Your task to perform on an android device: allow cookies in the chrome app Image 0: 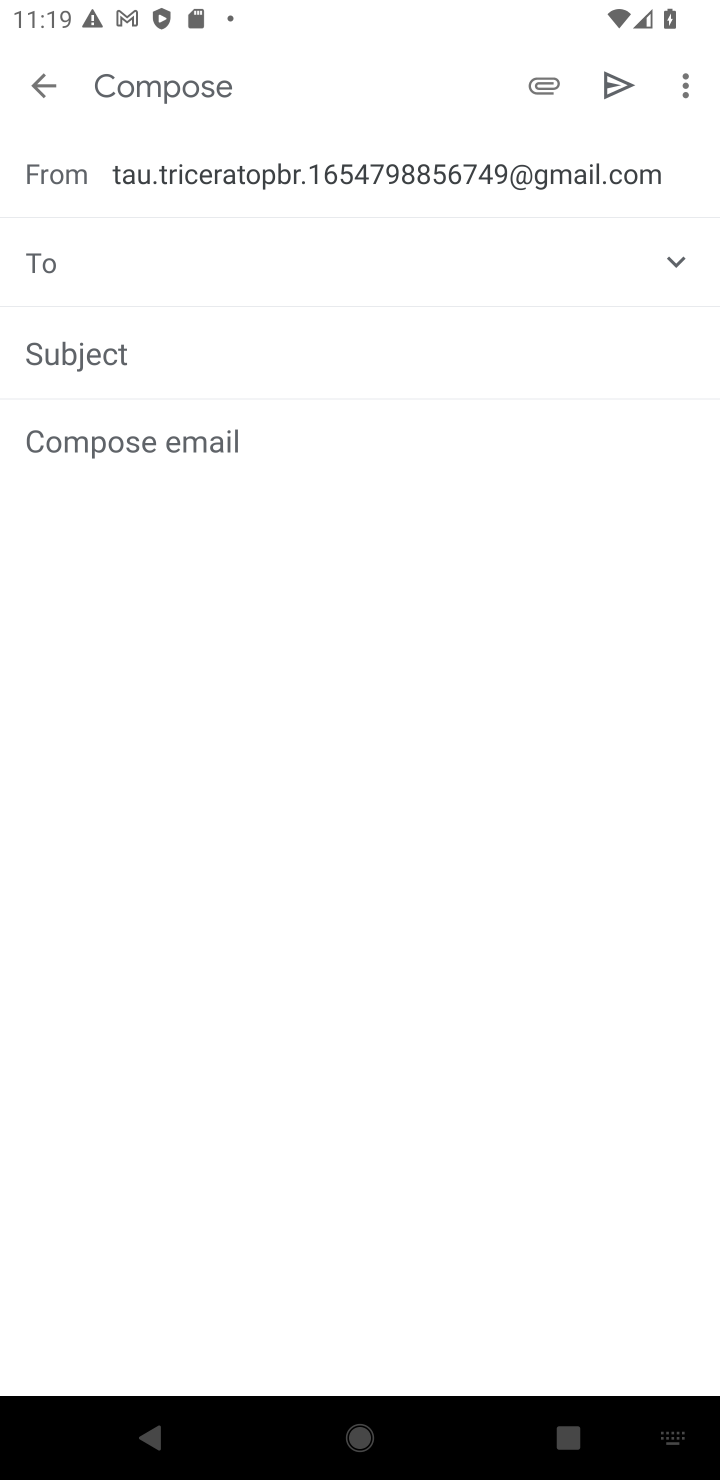
Step 0: press home button
Your task to perform on an android device: allow cookies in the chrome app Image 1: 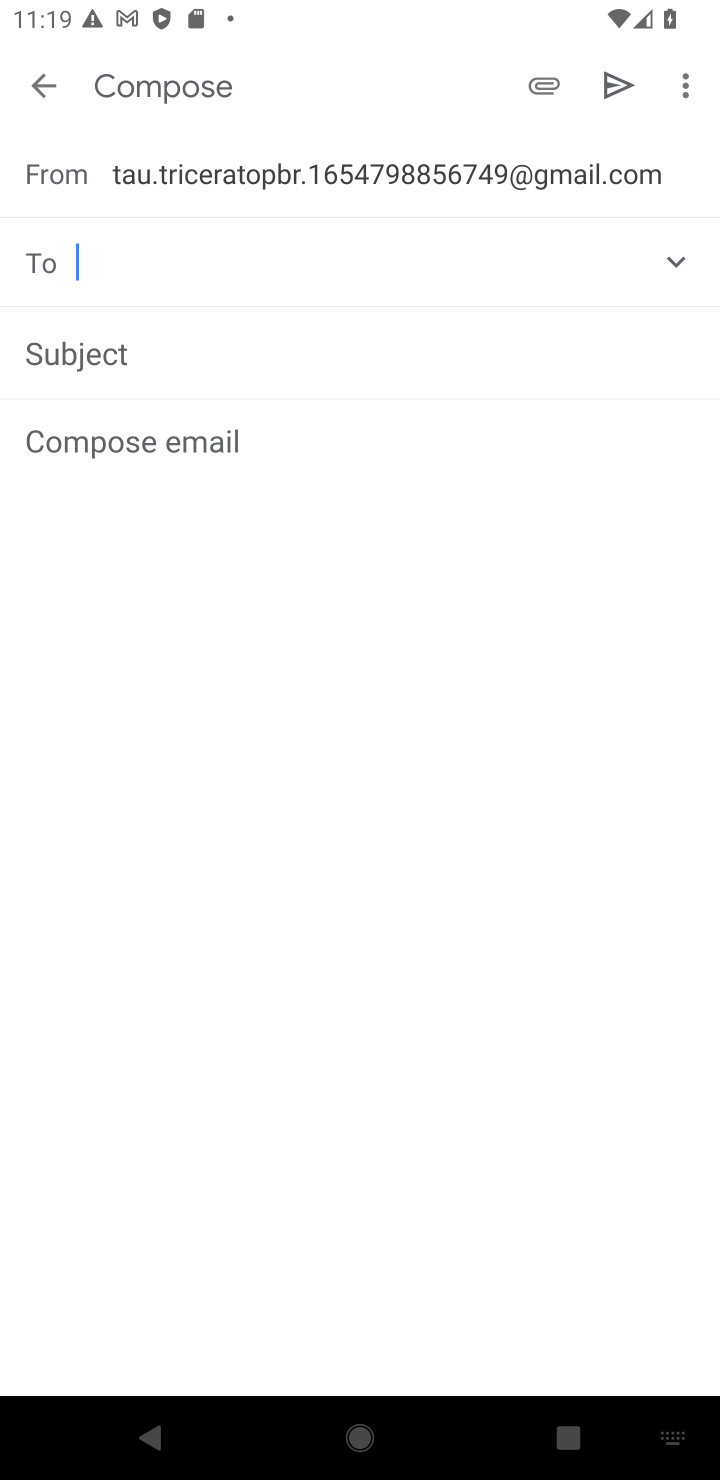
Step 1: press home button
Your task to perform on an android device: allow cookies in the chrome app Image 2: 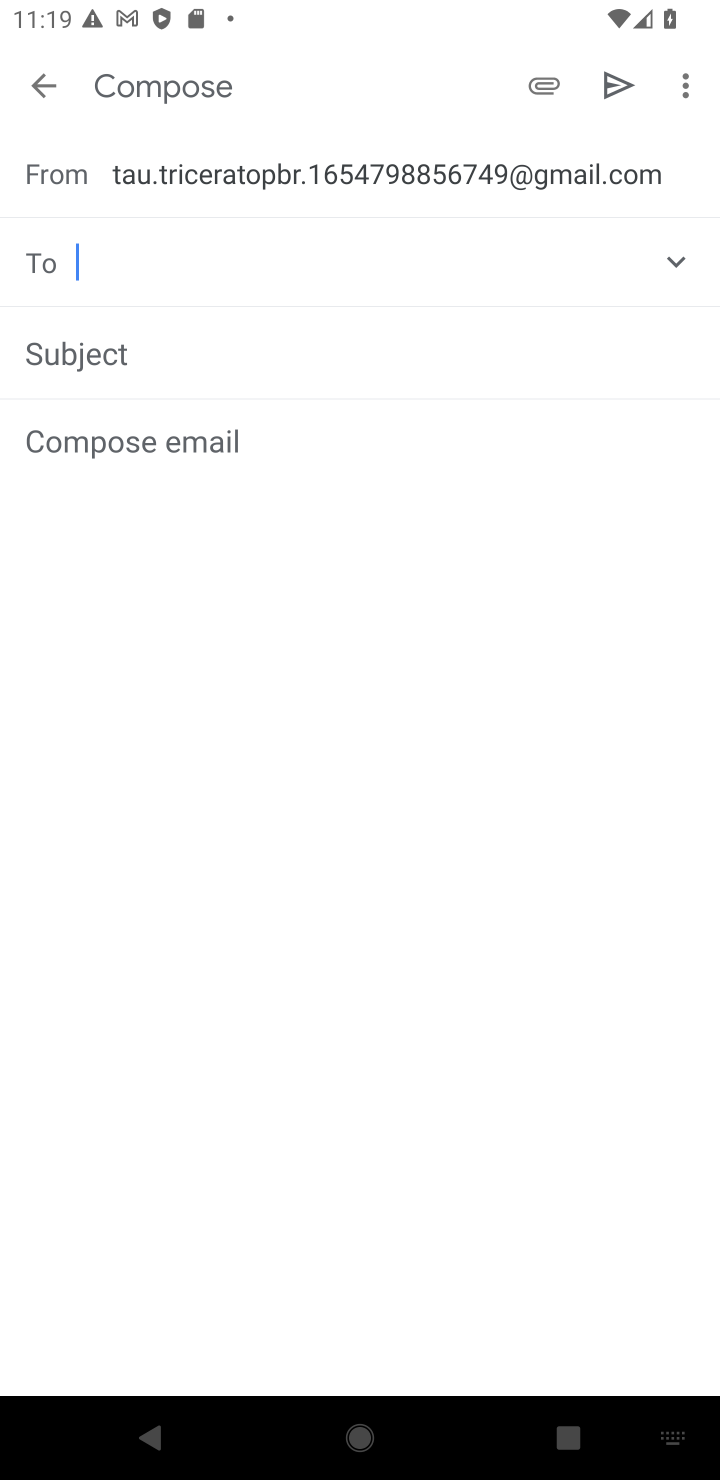
Step 2: press home button
Your task to perform on an android device: allow cookies in the chrome app Image 3: 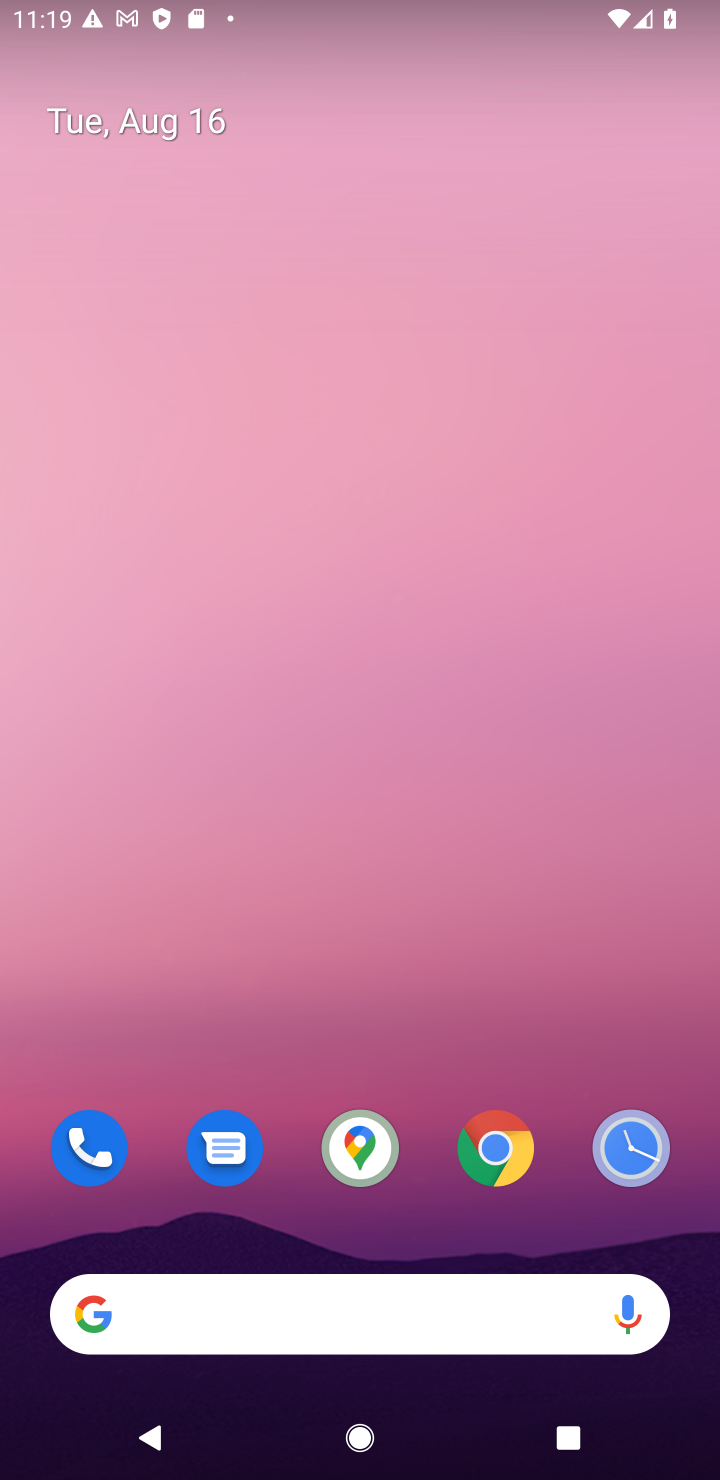
Step 3: press home button
Your task to perform on an android device: allow cookies in the chrome app Image 4: 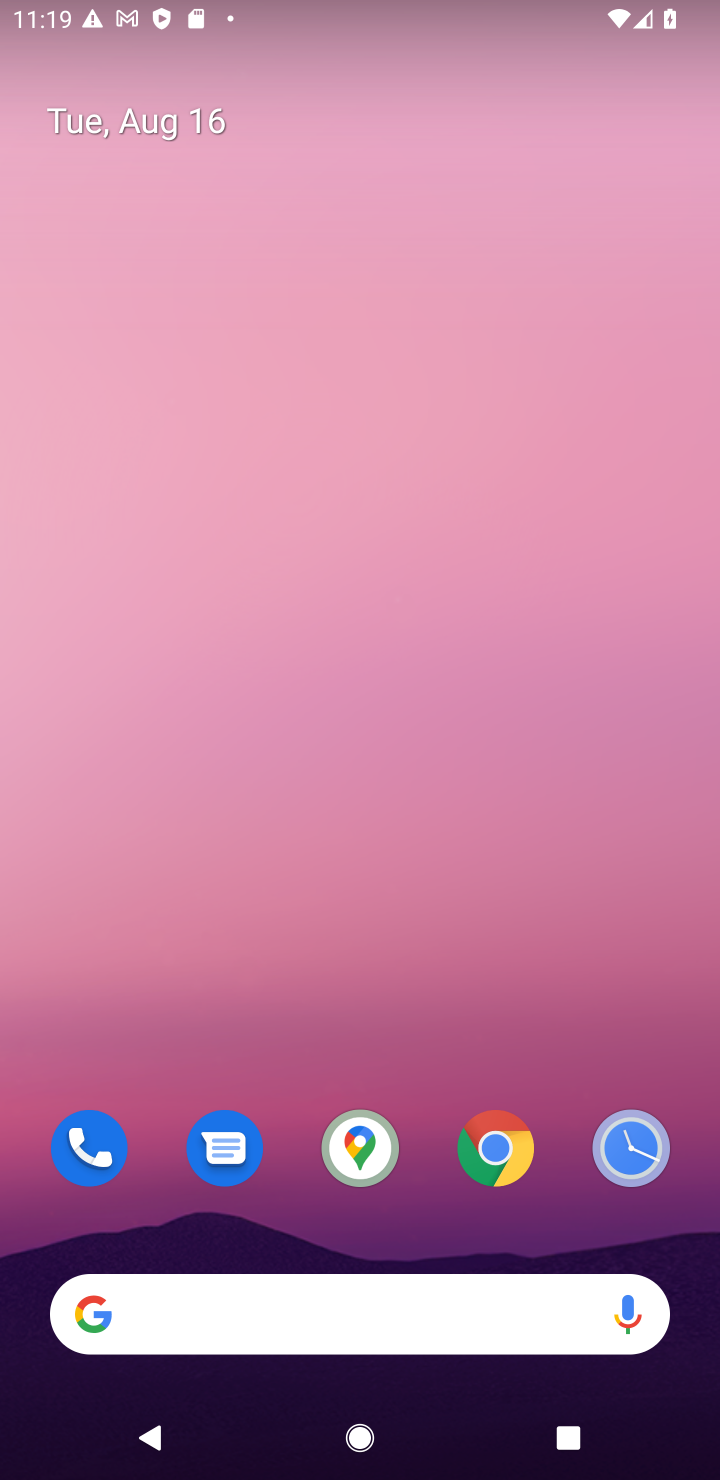
Step 4: press home button
Your task to perform on an android device: allow cookies in the chrome app Image 5: 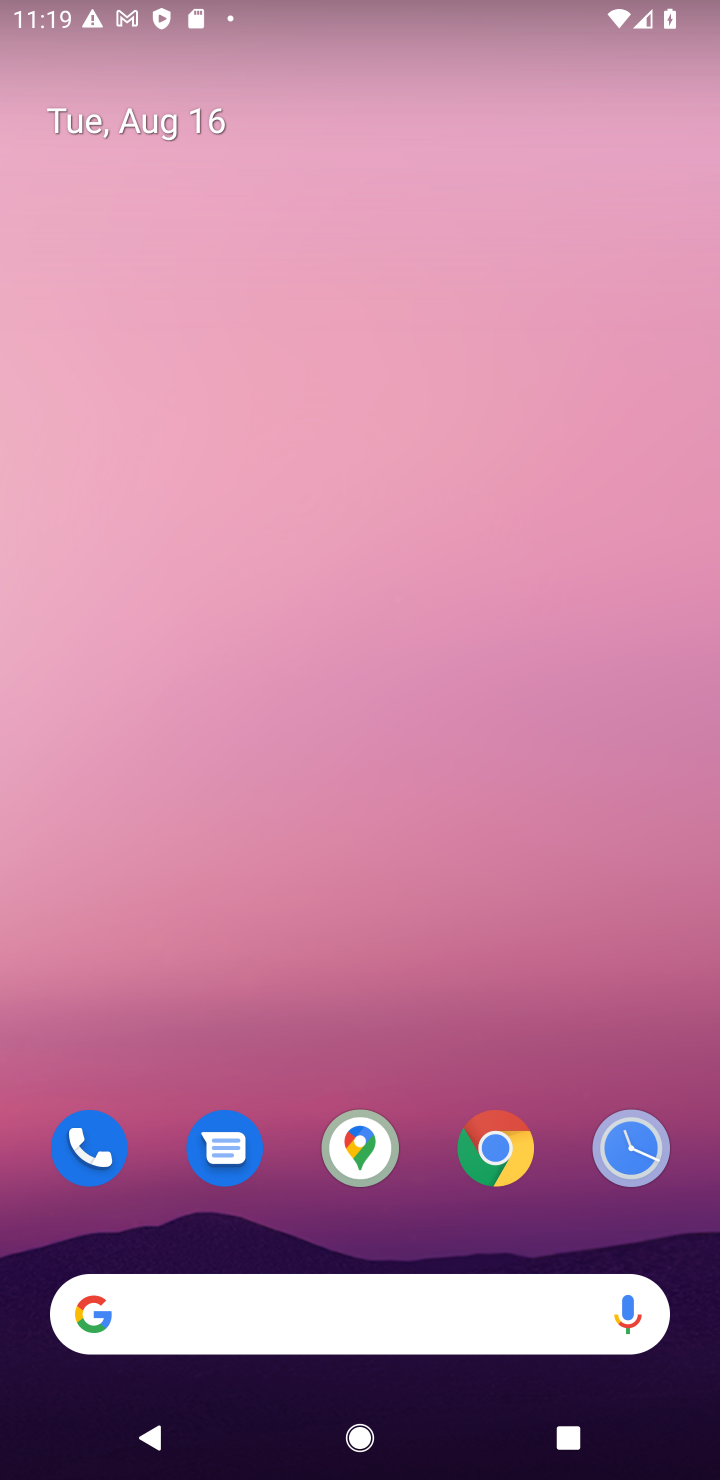
Step 5: press home button
Your task to perform on an android device: allow cookies in the chrome app Image 6: 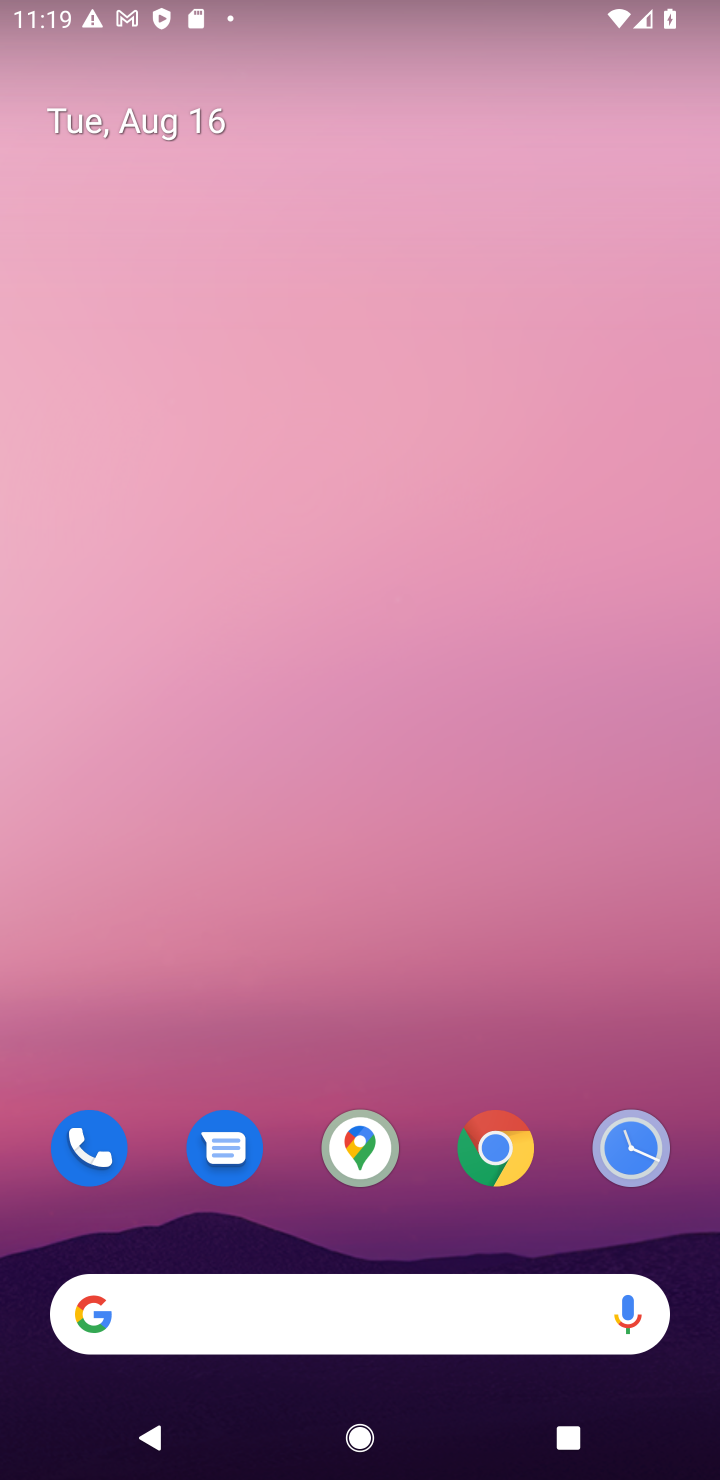
Step 6: press home button
Your task to perform on an android device: allow cookies in the chrome app Image 7: 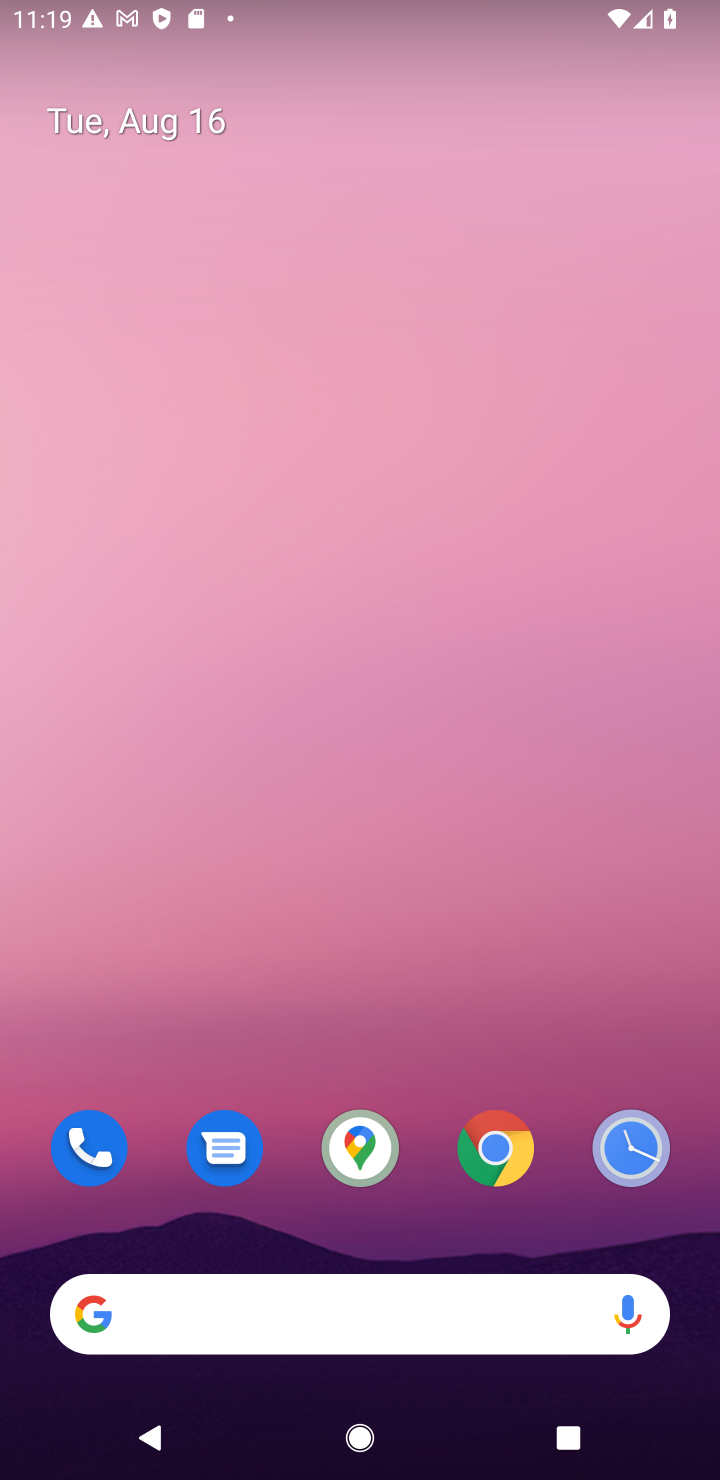
Step 7: click (184, 1316)
Your task to perform on an android device: allow cookies in the chrome app Image 8: 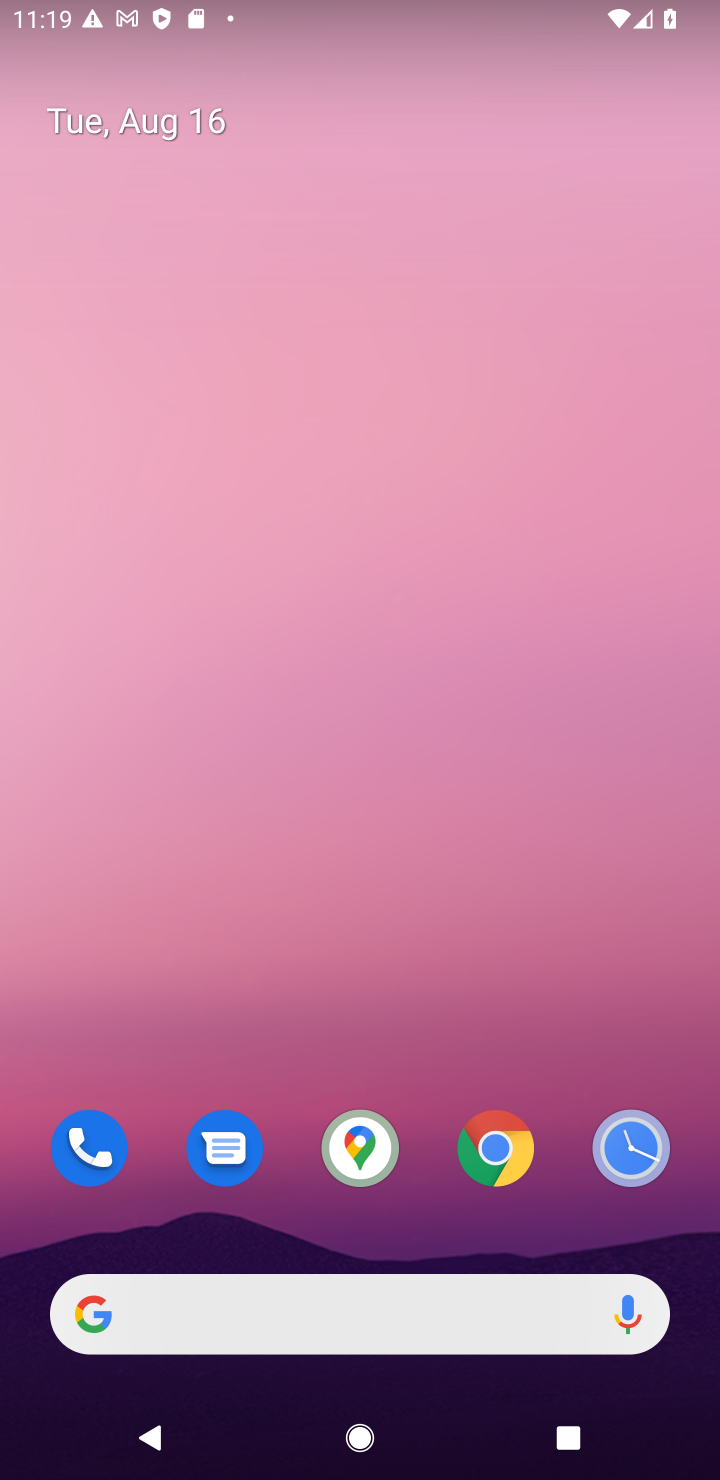
Step 8: click (496, 1152)
Your task to perform on an android device: allow cookies in the chrome app Image 9: 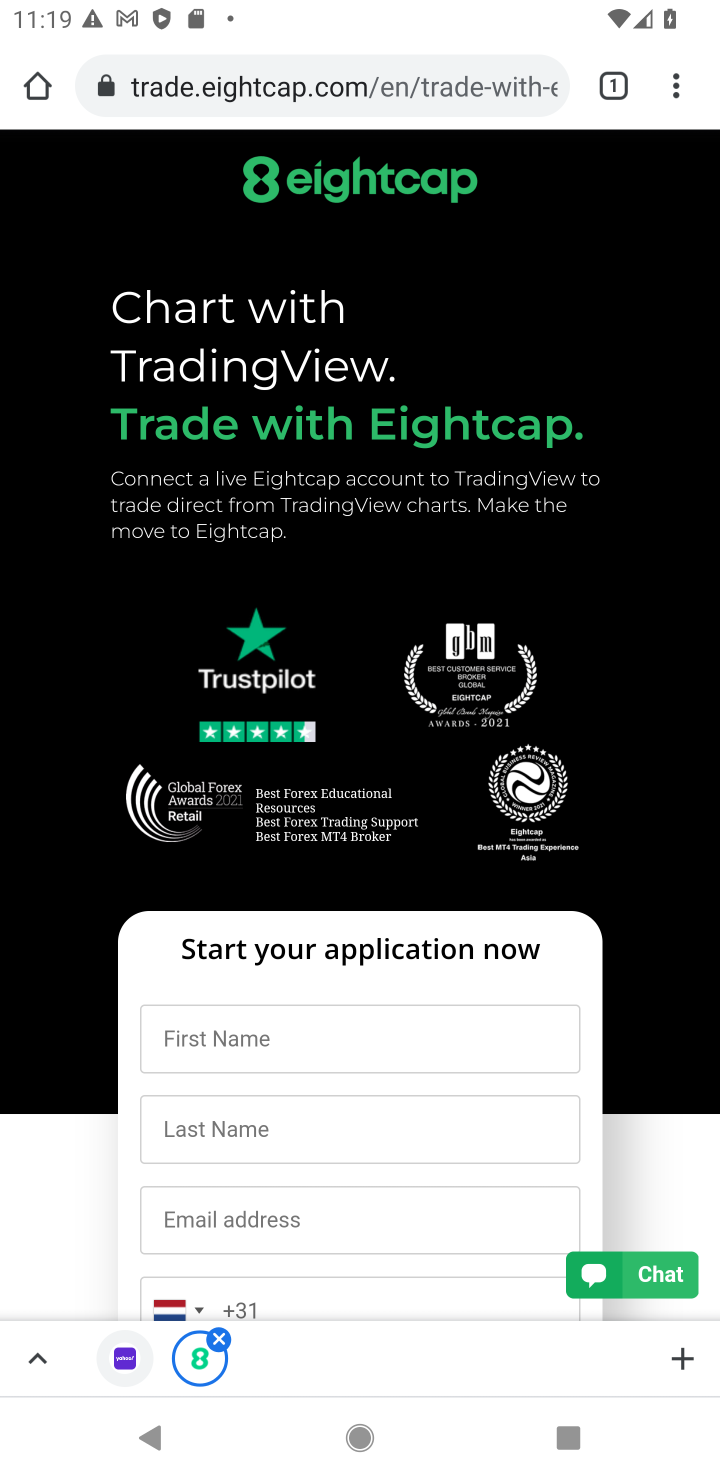
Step 9: drag from (682, 110) to (551, 1140)
Your task to perform on an android device: allow cookies in the chrome app Image 10: 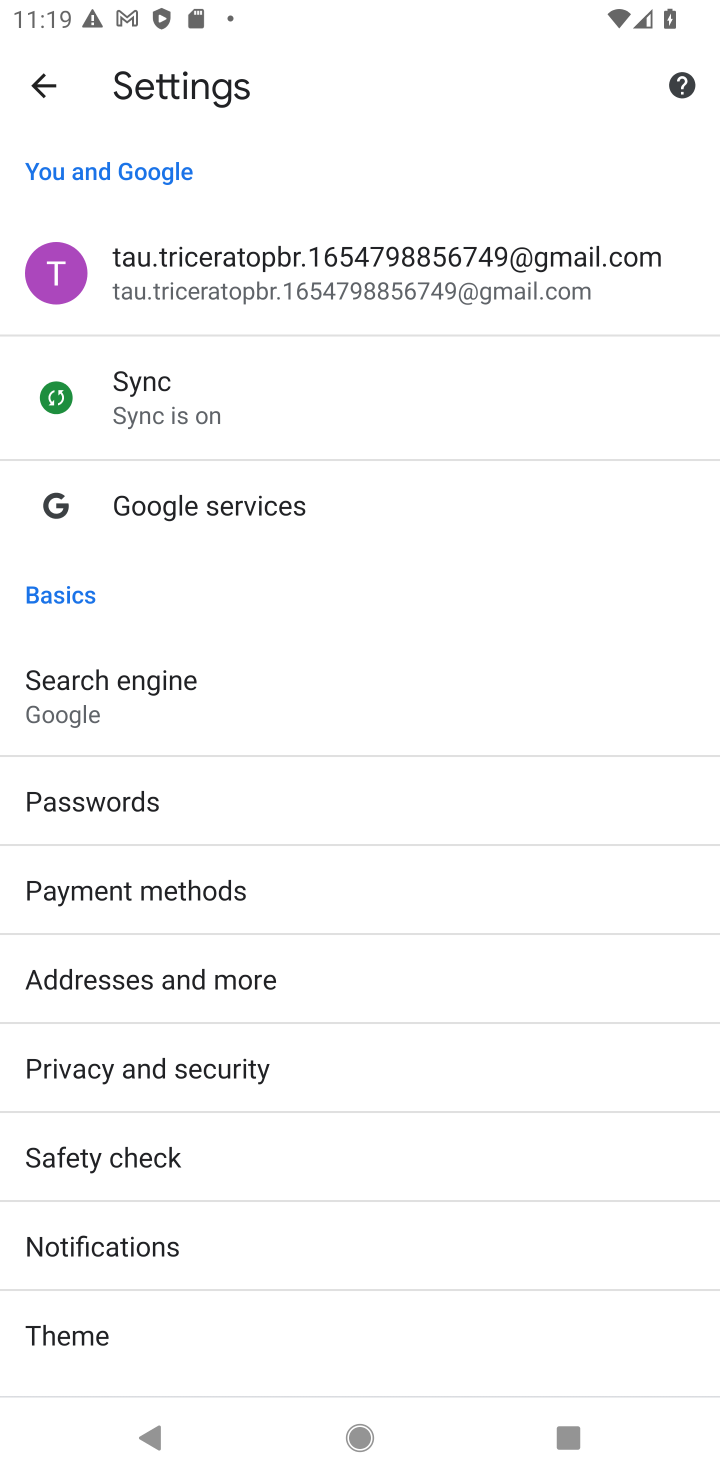
Step 10: drag from (500, 1102) to (455, 102)
Your task to perform on an android device: allow cookies in the chrome app Image 11: 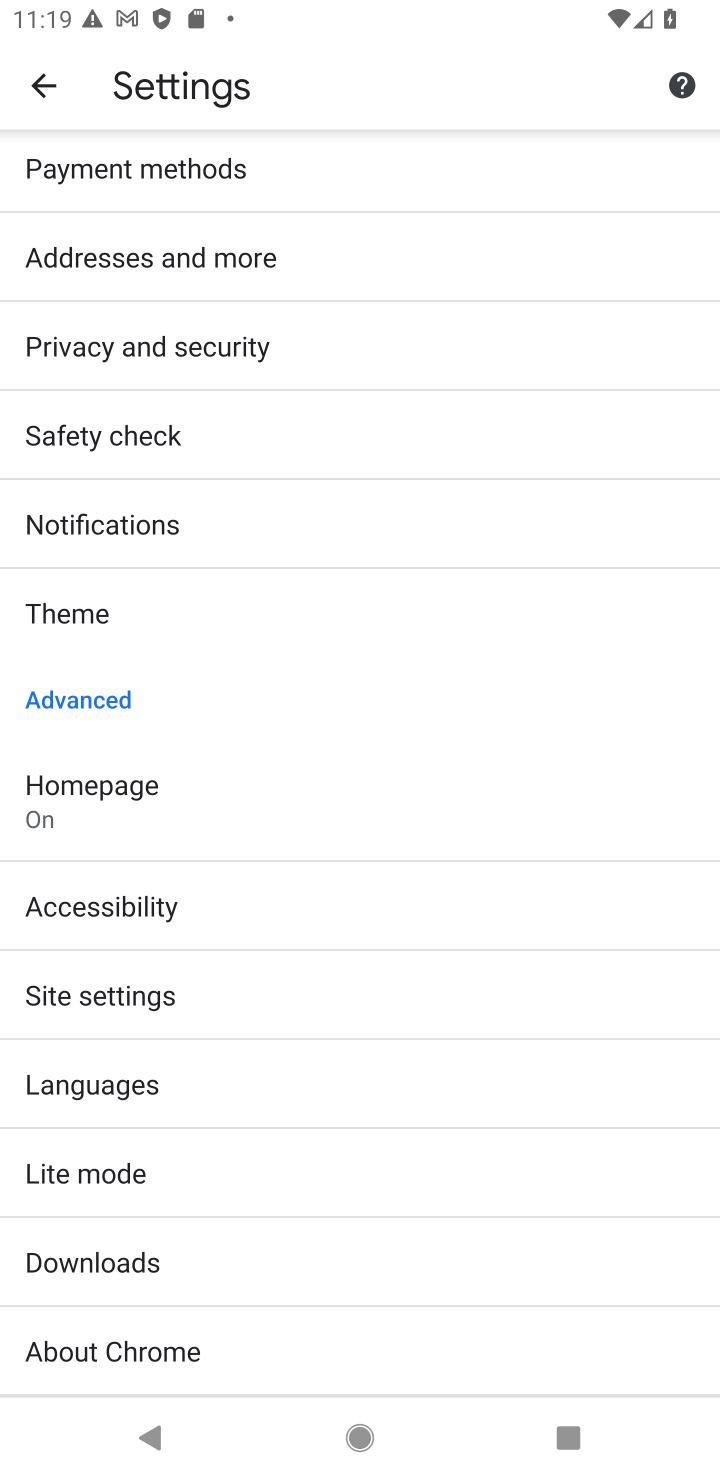
Step 11: click (178, 986)
Your task to perform on an android device: allow cookies in the chrome app Image 12: 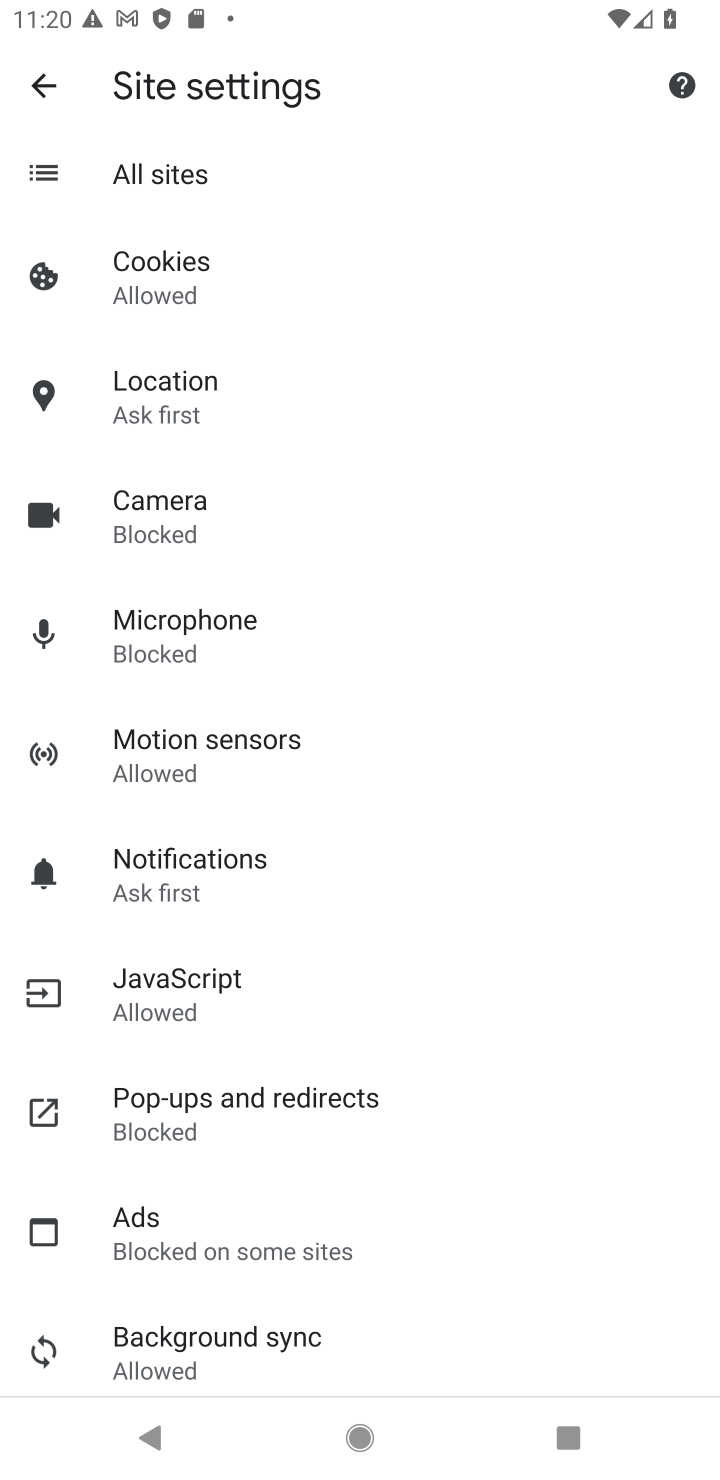
Step 12: click (209, 258)
Your task to perform on an android device: allow cookies in the chrome app Image 13: 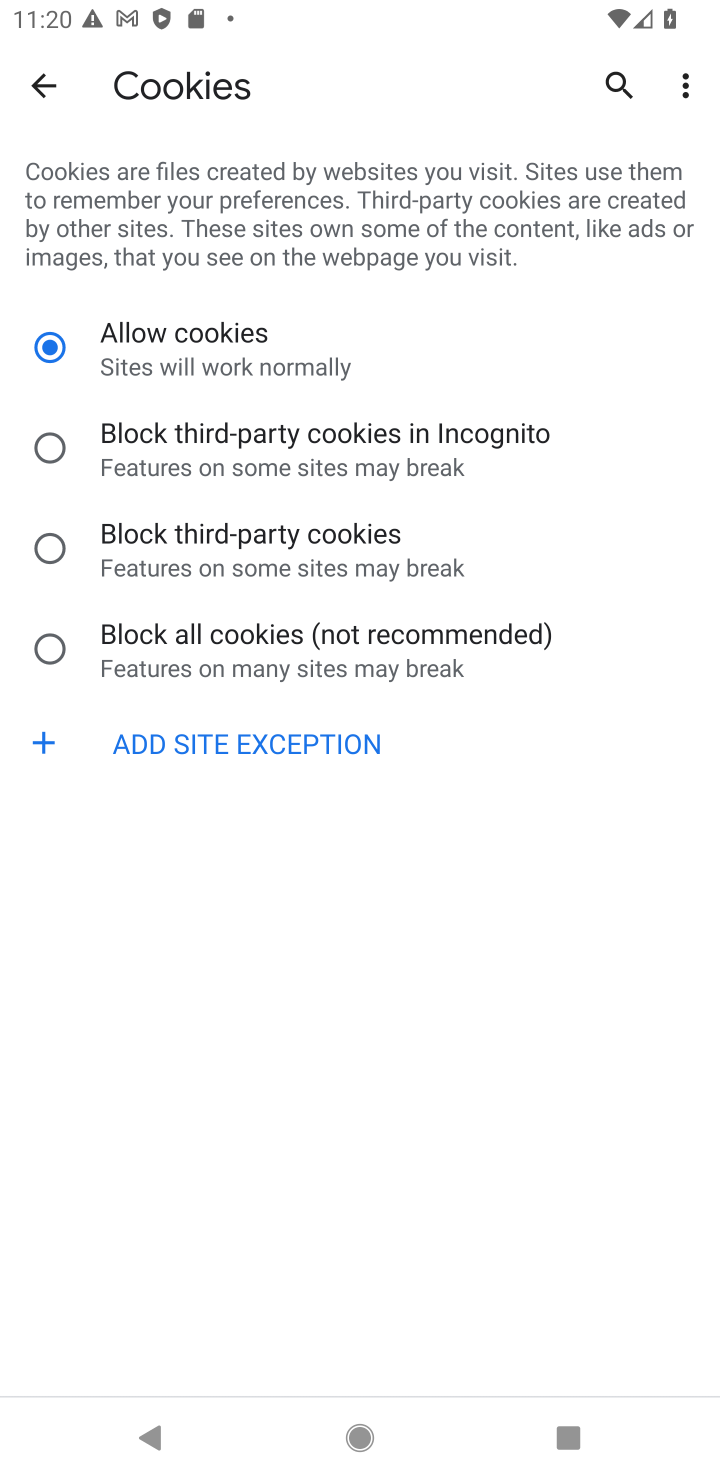
Step 13: click (209, 258)
Your task to perform on an android device: allow cookies in the chrome app Image 14: 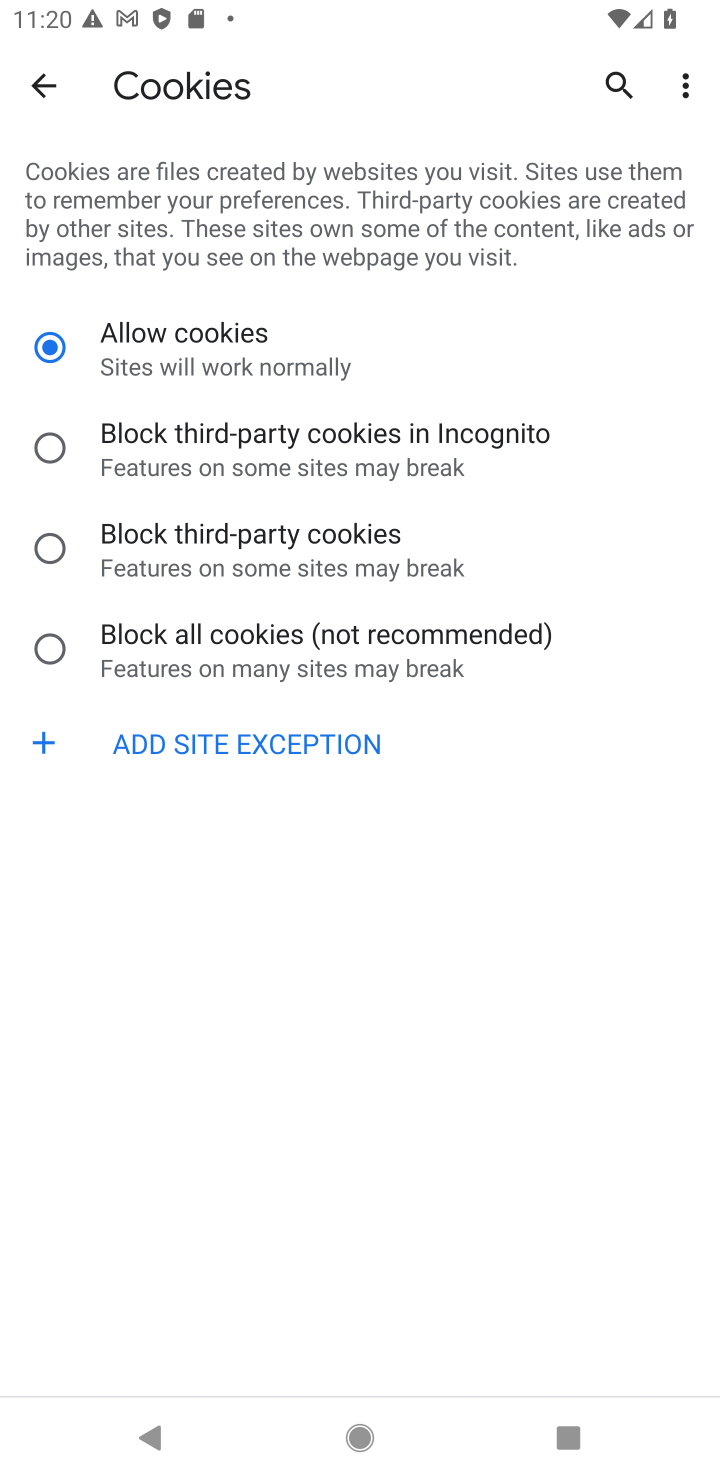
Step 14: click (209, 258)
Your task to perform on an android device: allow cookies in the chrome app Image 15: 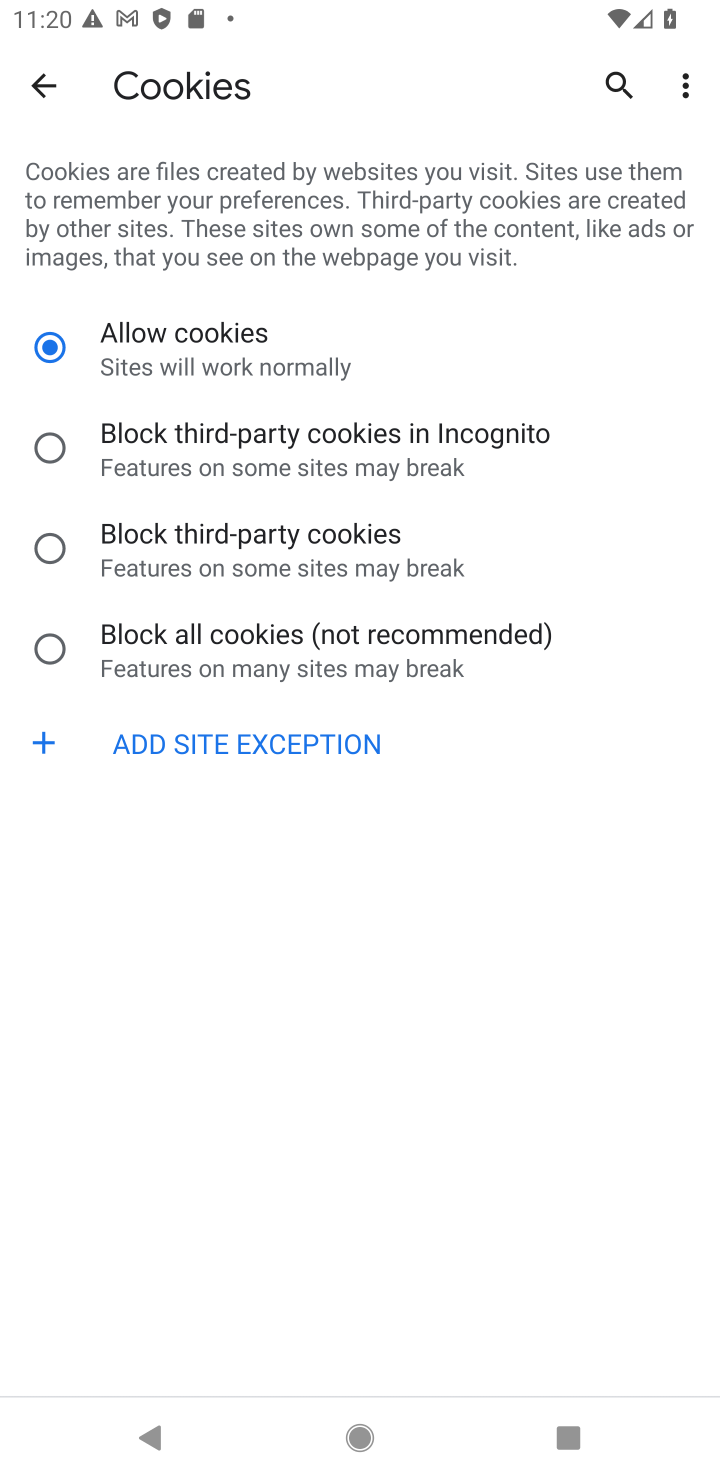
Step 15: click (228, 380)
Your task to perform on an android device: allow cookies in the chrome app Image 16: 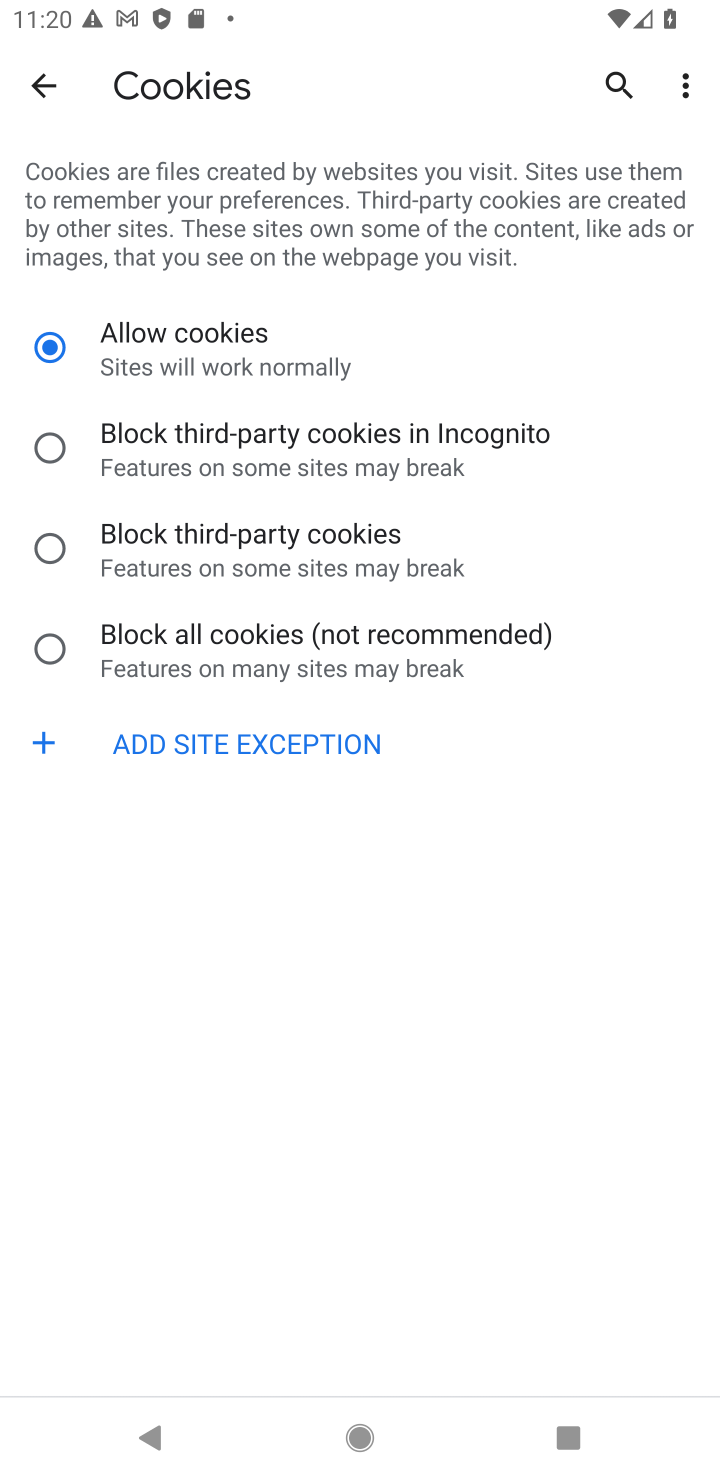
Step 16: task complete